Your task to perform on an android device: What is the news today? Image 0: 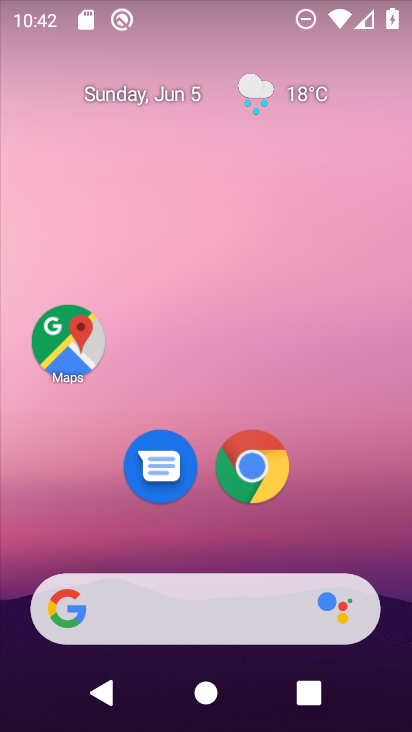
Step 0: drag from (337, 450) to (18, 0)
Your task to perform on an android device: What is the news today? Image 1: 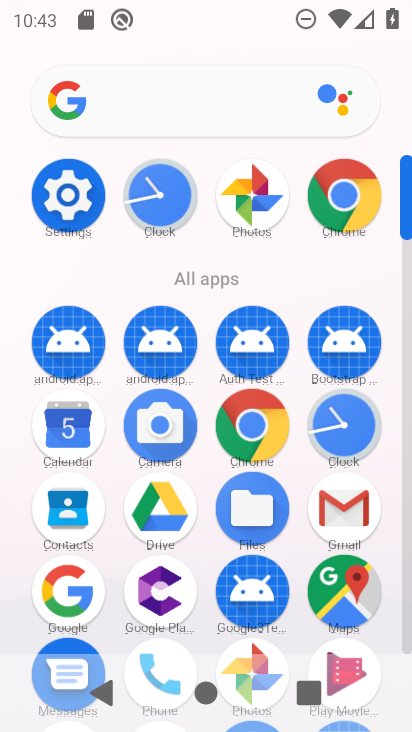
Step 1: click (255, 421)
Your task to perform on an android device: What is the news today? Image 2: 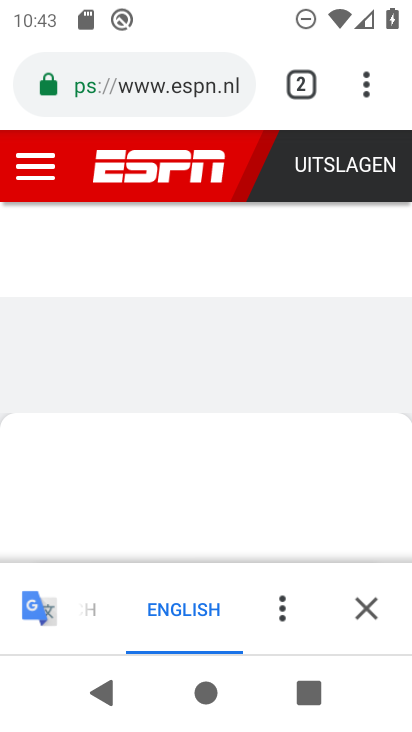
Step 2: click (161, 84)
Your task to perform on an android device: What is the news today? Image 3: 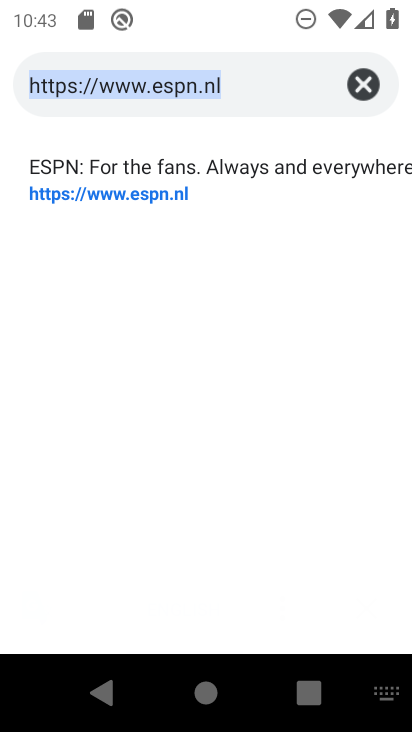
Step 3: click (367, 81)
Your task to perform on an android device: What is the news today? Image 4: 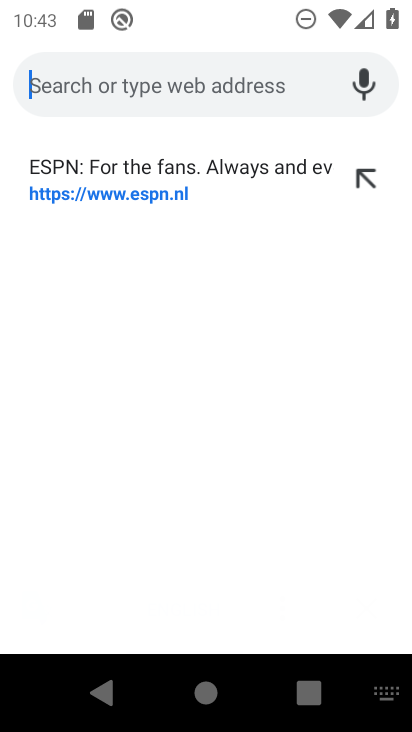
Step 4: type "What is the news today?"
Your task to perform on an android device: What is the news today? Image 5: 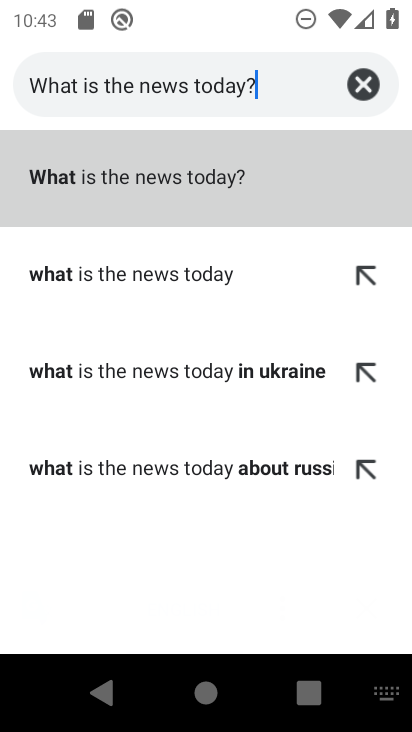
Step 5: type ""
Your task to perform on an android device: What is the news today? Image 6: 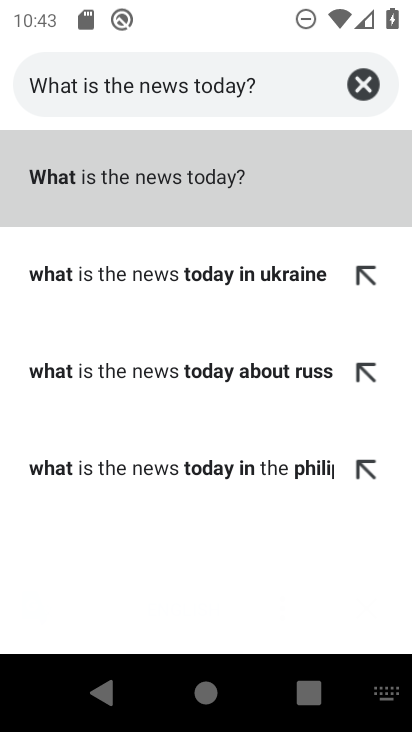
Step 6: click (175, 154)
Your task to perform on an android device: What is the news today? Image 7: 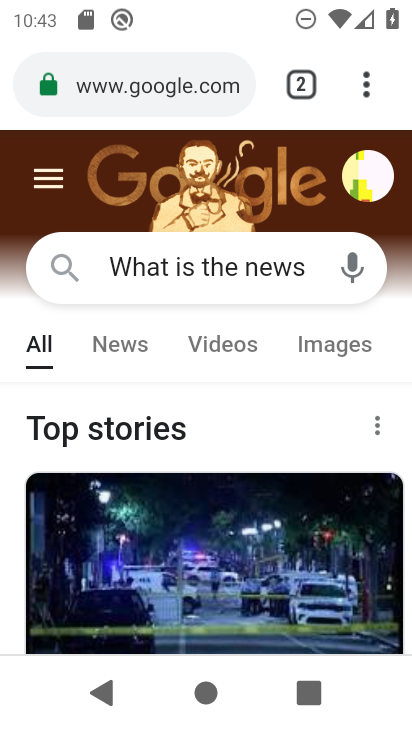
Step 7: task complete